Your task to perform on an android device: Search for seafood restaurants on Google Maps Image 0: 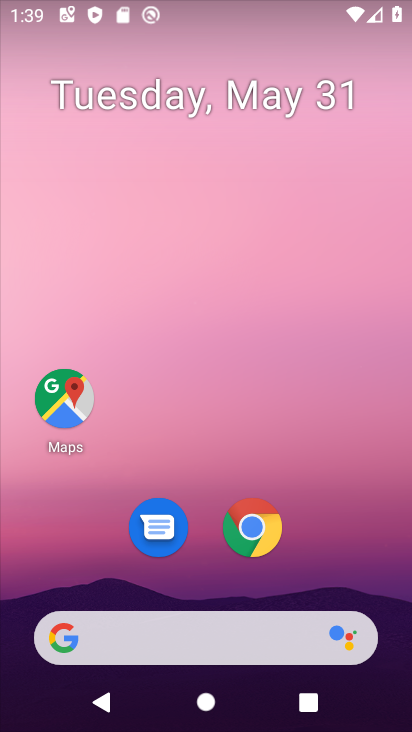
Step 0: drag from (352, 300) to (336, 82)
Your task to perform on an android device: Search for seafood restaurants on Google Maps Image 1: 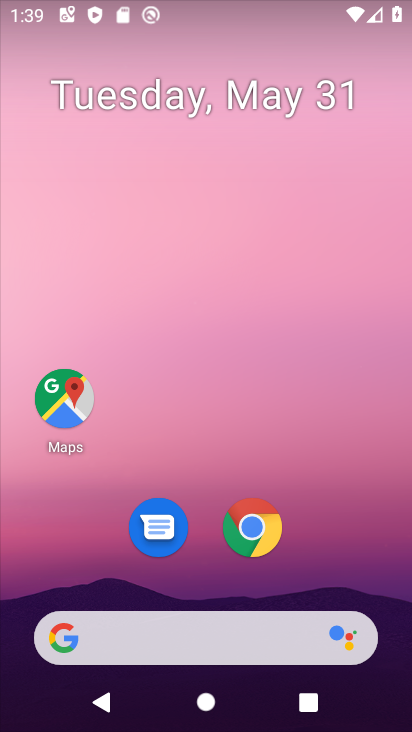
Step 1: drag from (371, 555) to (321, 77)
Your task to perform on an android device: Search for seafood restaurants on Google Maps Image 2: 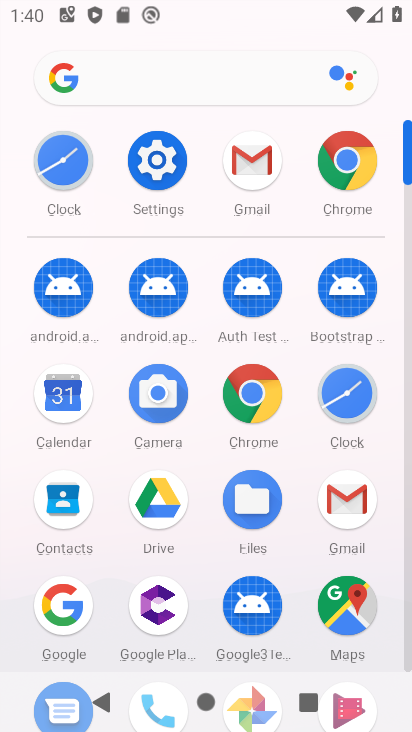
Step 2: click (327, 604)
Your task to perform on an android device: Search for seafood restaurants on Google Maps Image 3: 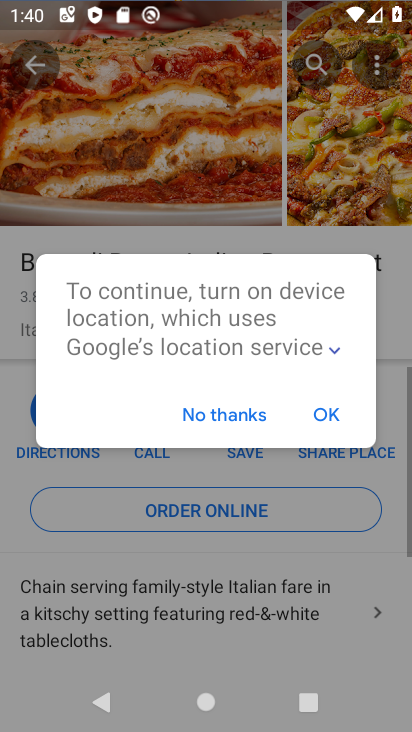
Step 3: click (30, 90)
Your task to perform on an android device: Search for seafood restaurants on Google Maps Image 4: 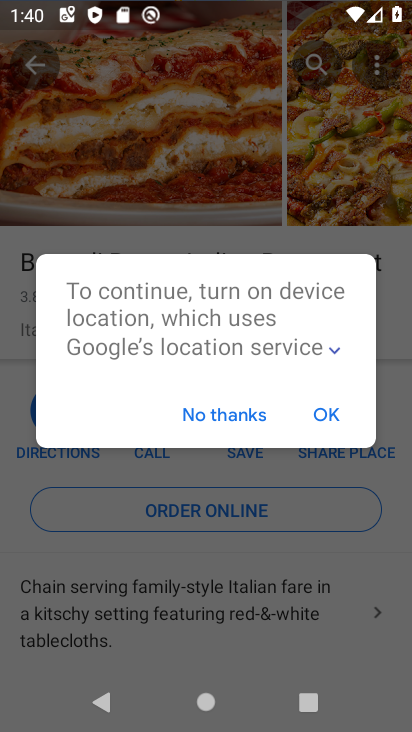
Step 4: click (253, 420)
Your task to perform on an android device: Search for seafood restaurants on Google Maps Image 5: 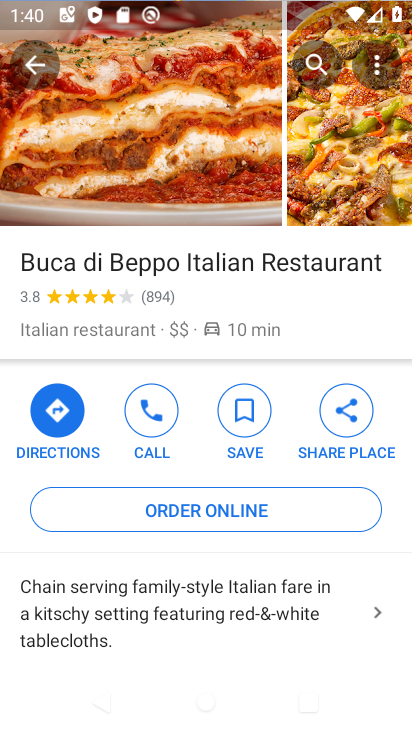
Step 5: click (42, 63)
Your task to perform on an android device: Search for seafood restaurants on Google Maps Image 6: 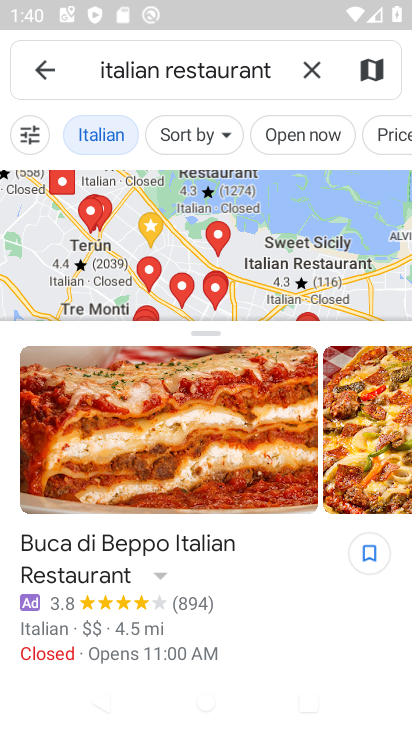
Step 6: click (304, 73)
Your task to perform on an android device: Search for seafood restaurants on Google Maps Image 7: 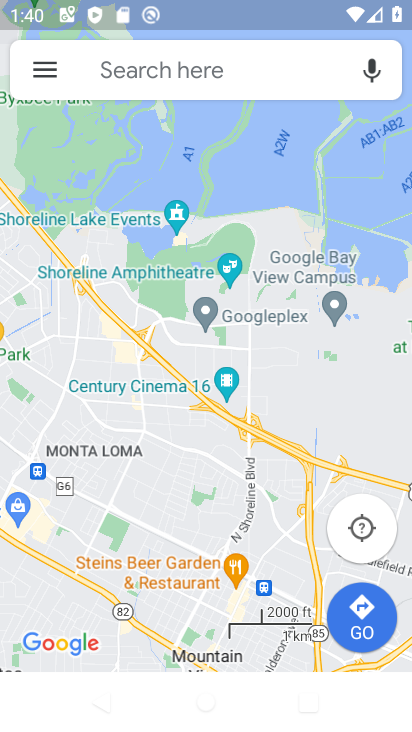
Step 7: click (228, 84)
Your task to perform on an android device: Search for seafood restaurants on Google Maps Image 8: 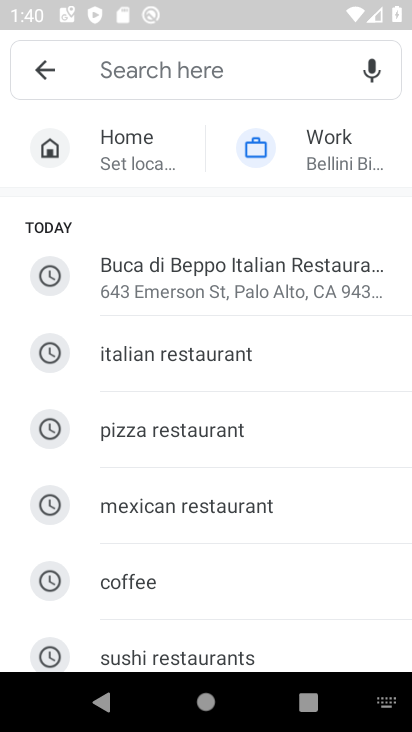
Step 8: drag from (230, 546) to (271, 325)
Your task to perform on an android device: Search for seafood restaurants on Google Maps Image 9: 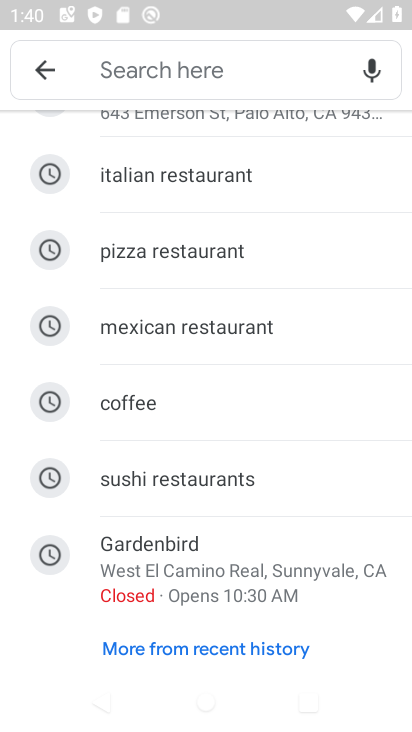
Step 9: drag from (173, 570) to (187, 241)
Your task to perform on an android device: Search for seafood restaurants on Google Maps Image 10: 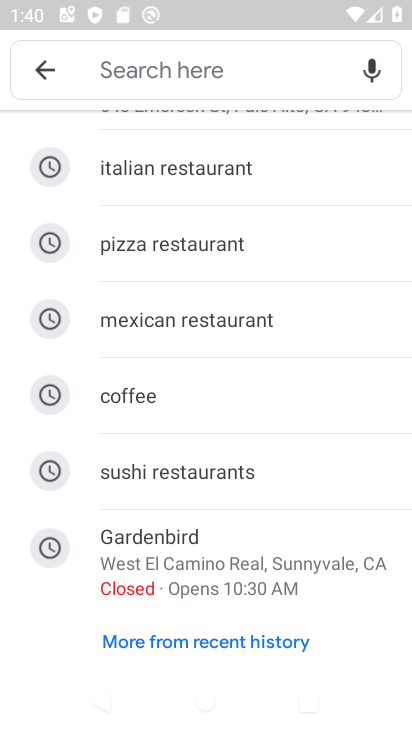
Step 10: drag from (187, 244) to (169, 599)
Your task to perform on an android device: Search for seafood restaurants on Google Maps Image 11: 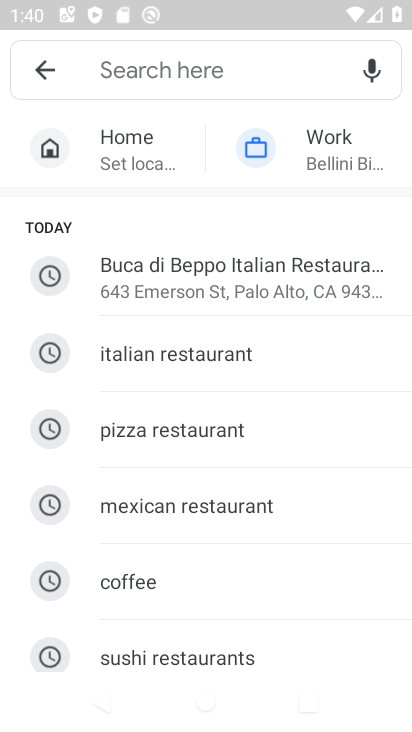
Step 11: drag from (176, 618) to (226, 228)
Your task to perform on an android device: Search for seafood restaurants on Google Maps Image 12: 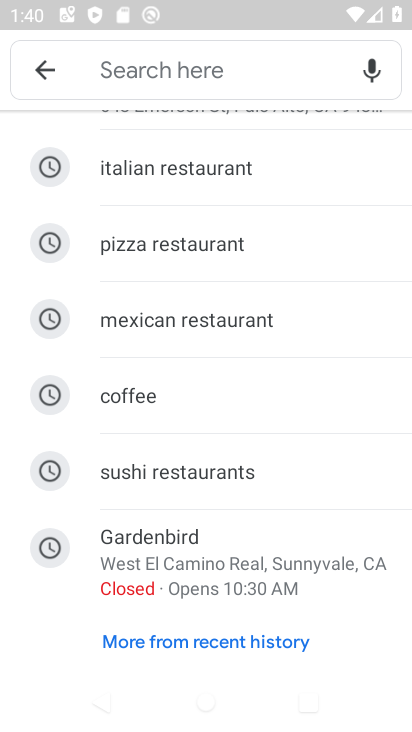
Step 12: click (159, 640)
Your task to perform on an android device: Search for seafood restaurants on Google Maps Image 13: 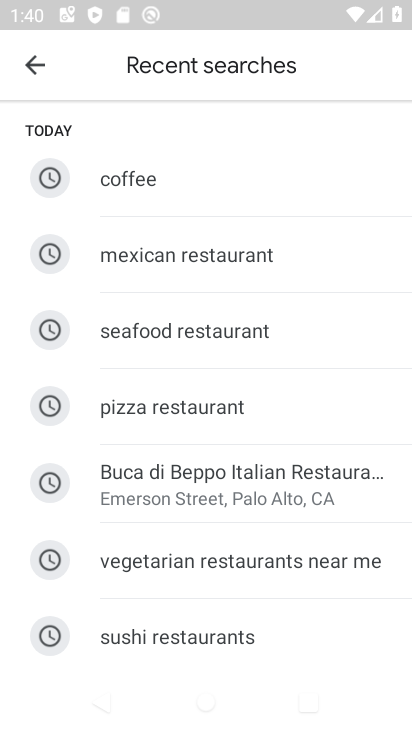
Step 13: drag from (157, 630) to (173, 264)
Your task to perform on an android device: Search for seafood restaurants on Google Maps Image 14: 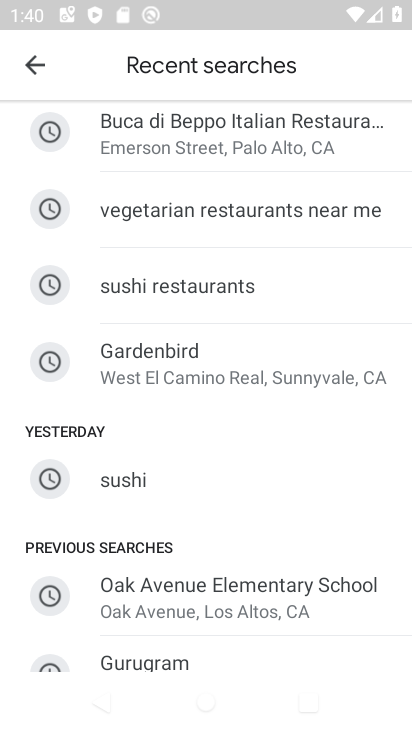
Step 14: drag from (186, 586) to (225, 175)
Your task to perform on an android device: Search for seafood restaurants on Google Maps Image 15: 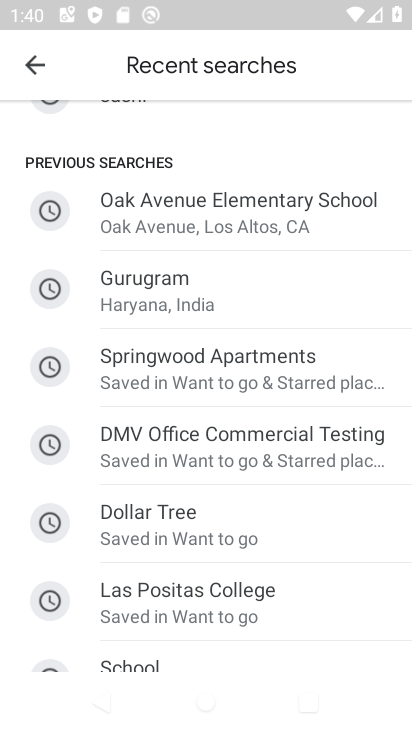
Step 15: drag from (225, 175) to (180, 596)
Your task to perform on an android device: Search for seafood restaurants on Google Maps Image 16: 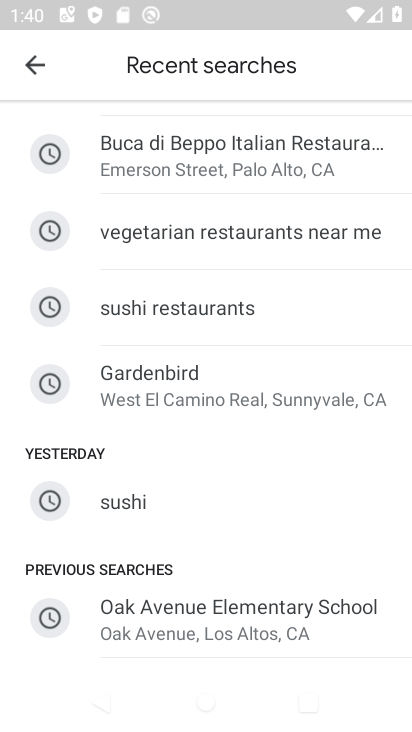
Step 16: drag from (226, 191) to (175, 601)
Your task to perform on an android device: Search for seafood restaurants on Google Maps Image 17: 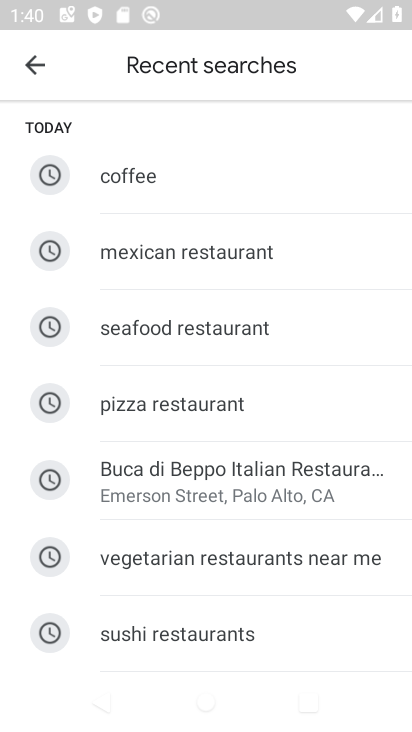
Step 17: click (143, 325)
Your task to perform on an android device: Search for seafood restaurants on Google Maps Image 18: 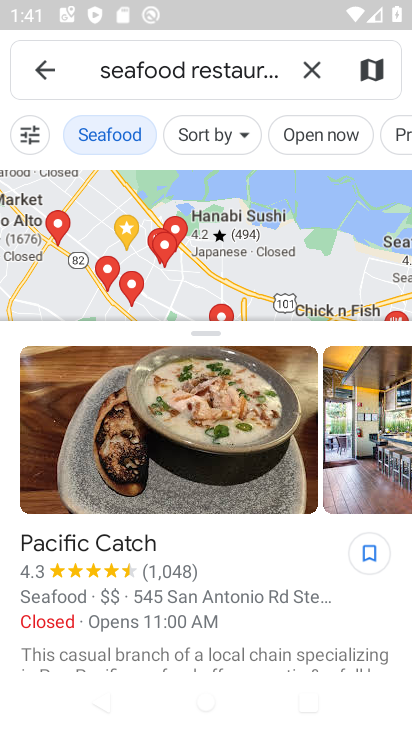
Step 18: task complete